Your task to perform on an android device: turn on translation in the chrome app Image 0: 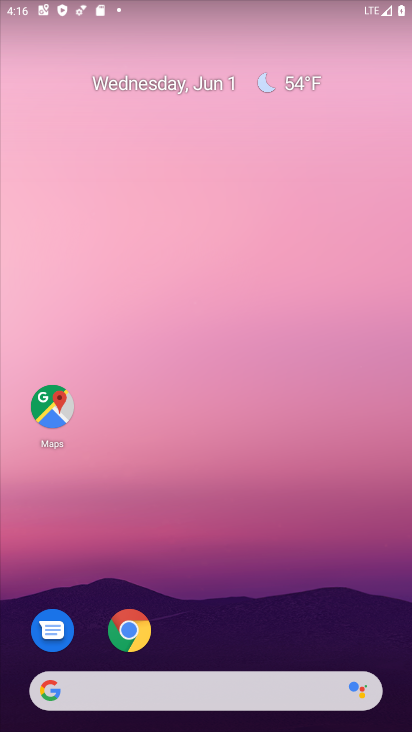
Step 0: drag from (279, 537) to (240, 8)
Your task to perform on an android device: turn on translation in the chrome app Image 1: 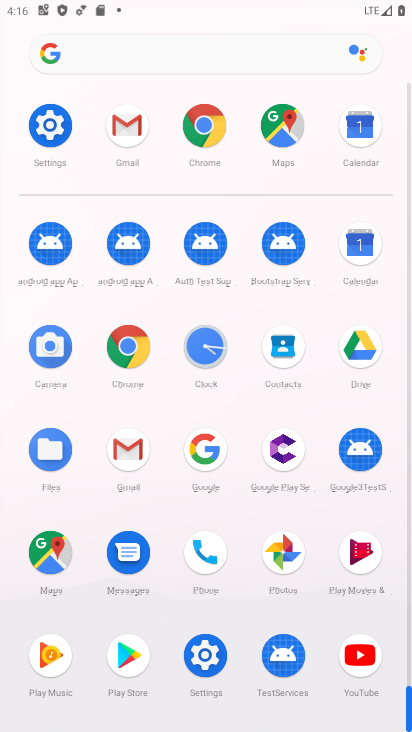
Step 1: drag from (11, 597) to (23, 226)
Your task to perform on an android device: turn on translation in the chrome app Image 2: 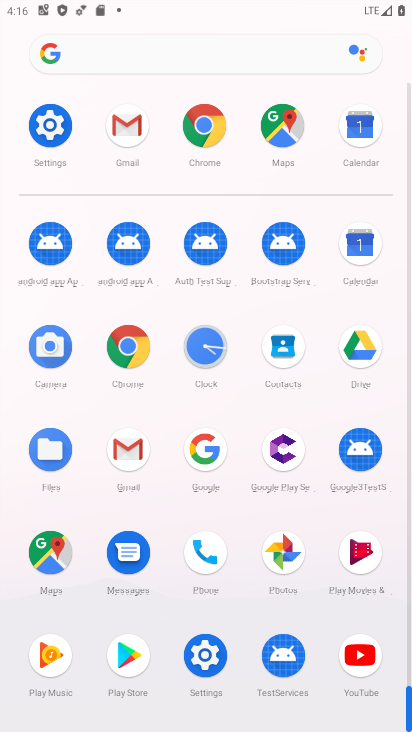
Step 2: click (126, 344)
Your task to perform on an android device: turn on translation in the chrome app Image 3: 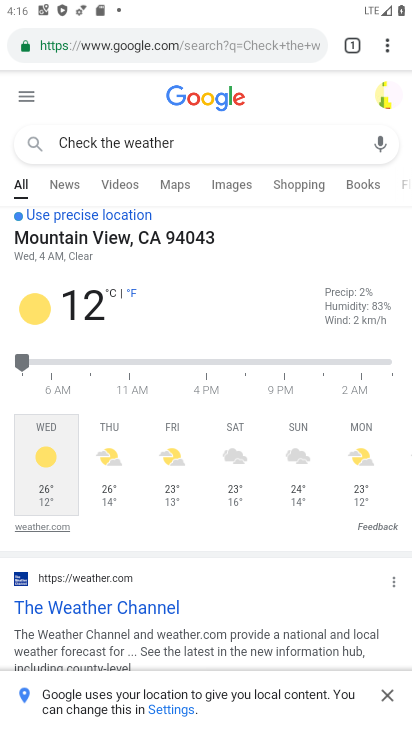
Step 3: drag from (387, 45) to (224, 495)
Your task to perform on an android device: turn on translation in the chrome app Image 4: 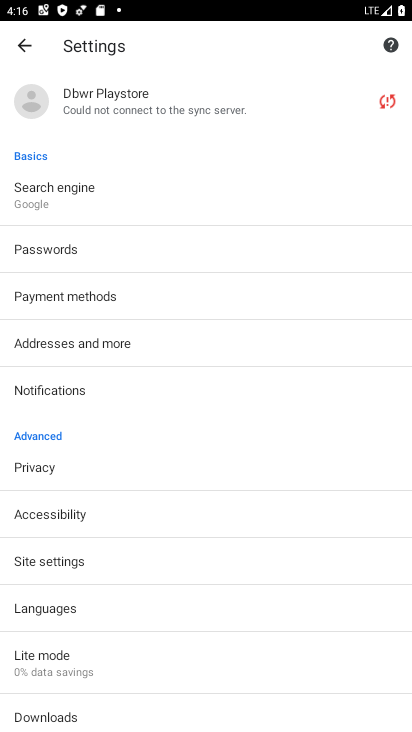
Step 4: click (84, 599)
Your task to perform on an android device: turn on translation in the chrome app Image 5: 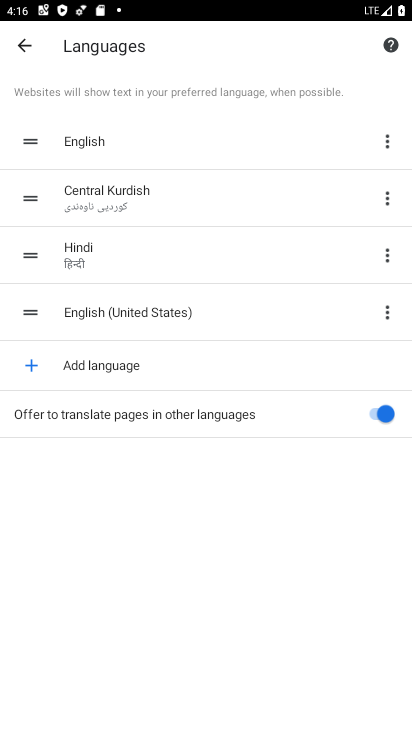
Step 5: task complete